Your task to perform on an android device: toggle sleep mode Image 0: 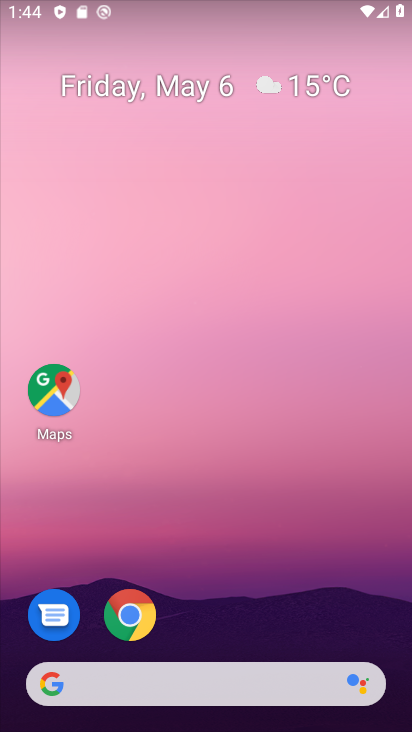
Step 0: drag from (264, 593) to (323, 70)
Your task to perform on an android device: toggle sleep mode Image 1: 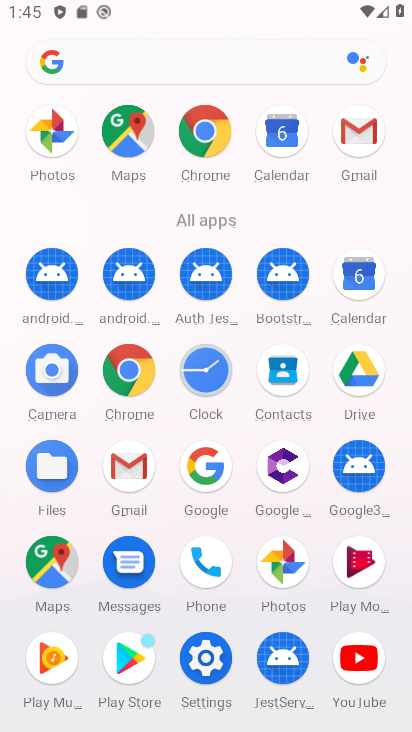
Step 1: click (210, 661)
Your task to perform on an android device: toggle sleep mode Image 2: 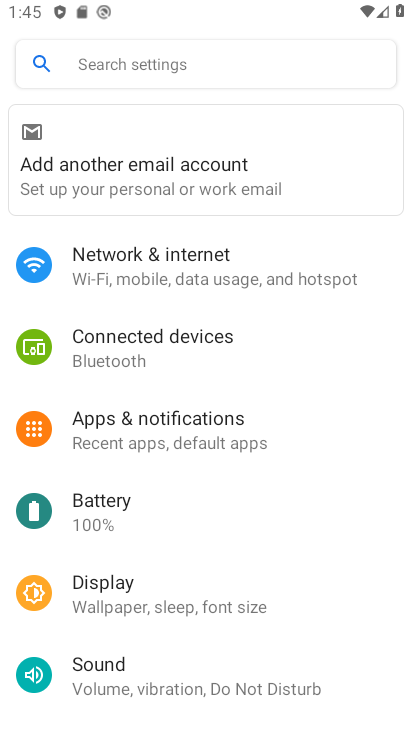
Step 2: drag from (239, 614) to (239, 358)
Your task to perform on an android device: toggle sleep mode Image 3: 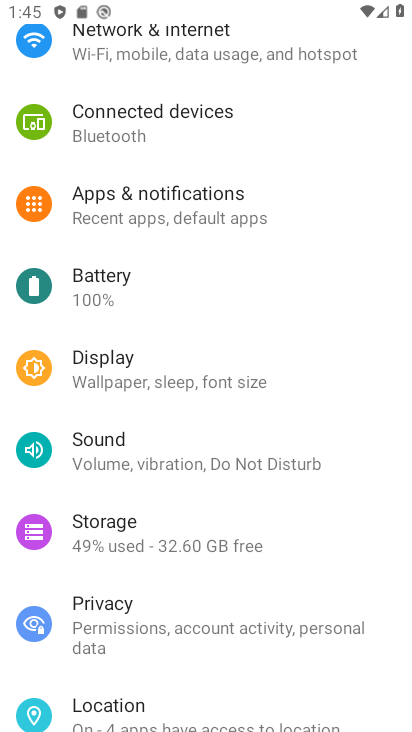
Step 3: click (184, 381)
Your task to perform on an android device: toggle sleep mode Image 4: 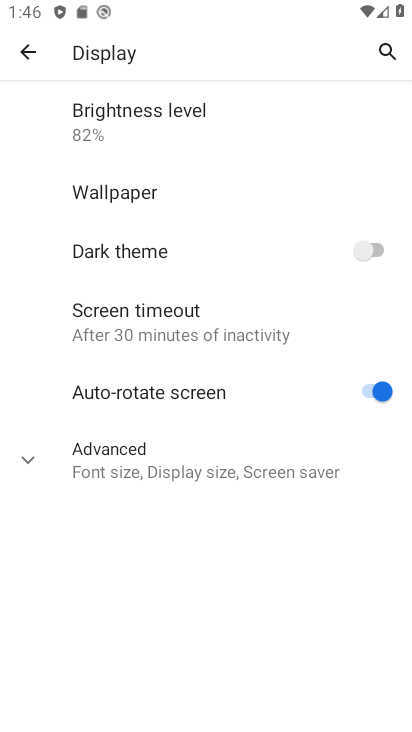
Step 4: click (28, 458)
Your task to perform on an android device: toggle sleep mode Image 5: 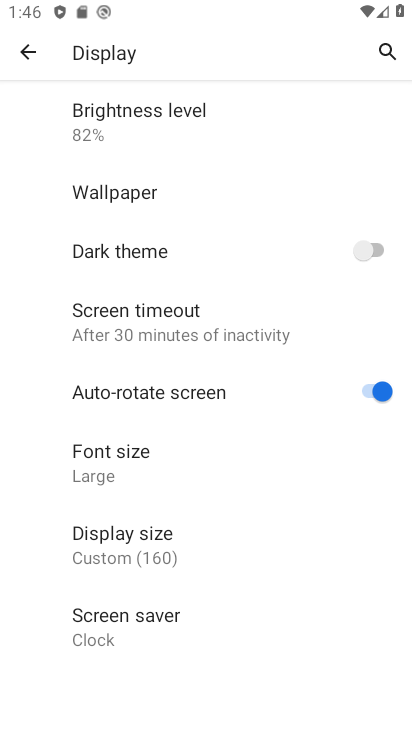
Step 5: task complete